Your task to perform on an android device: Clear all items from cart on ebay. Search for "dell xps" on ebay, select the first entry, add it to the cart, then select checkout. Image 0: 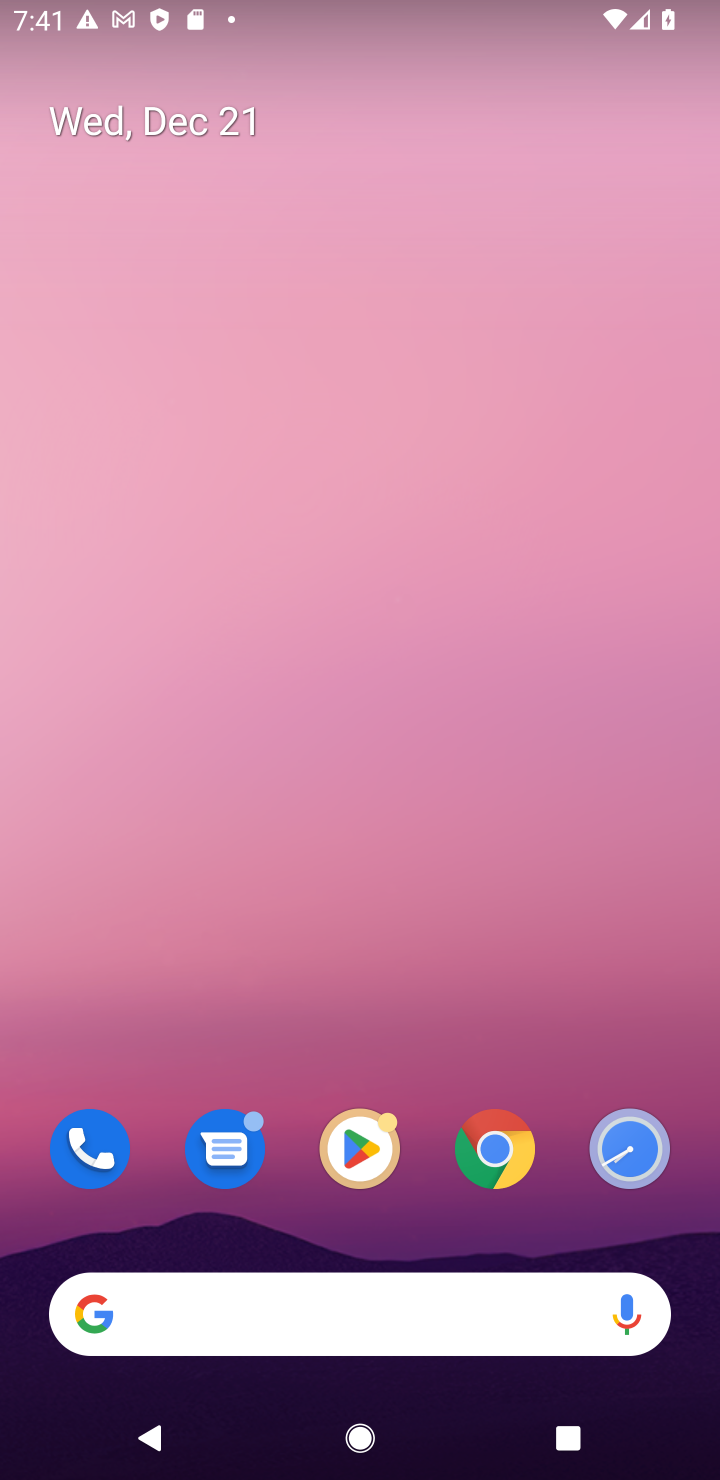
Step 0: click (498, 1154)
Your task to perform on an android device: Clear all items from cart on ebay. Search for "dell xps" on ebay, select the first entry, add it to the cart, then select checkout. Image 1: 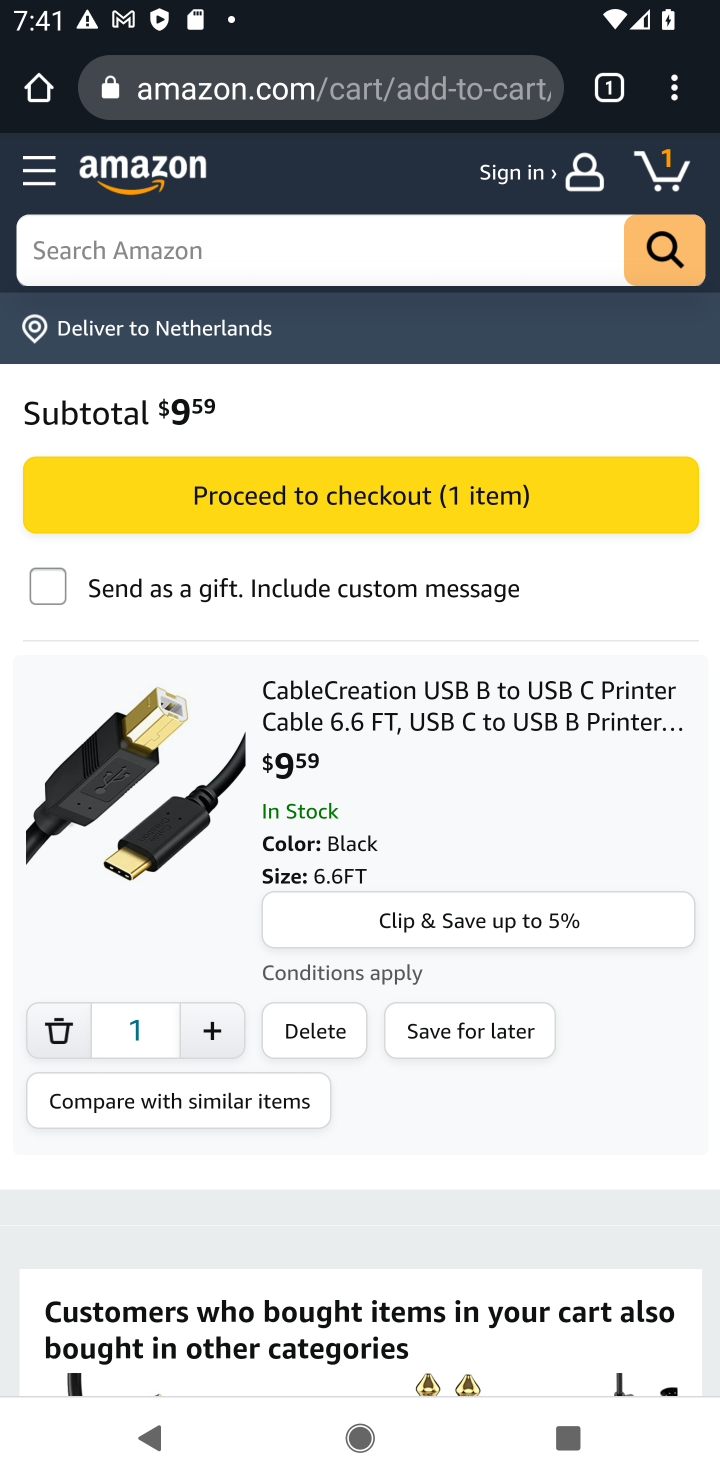
Step 1: click (408, 97)
Your task to perform on an android device: Clear all items from cart on ebay. Search for "dell xps" on ebay, select the first entry, add it to the cart, then select checkout. Image 2: 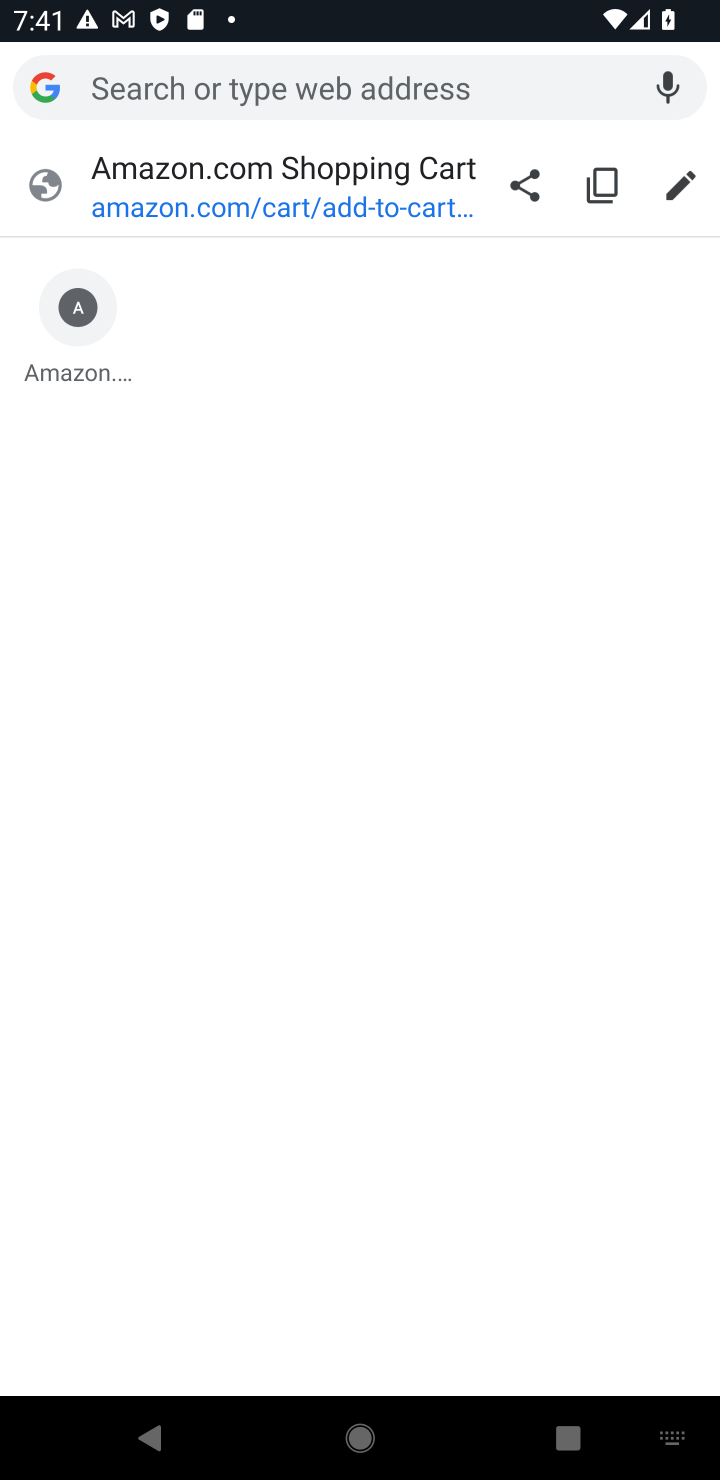
Step 2: type "EBAY"
Your task to perform on an android device: Clear all items from cart on ebay. Search for "dell xps" on ebay, select the first entry, add it to the cart, then select checkout. Image 3: 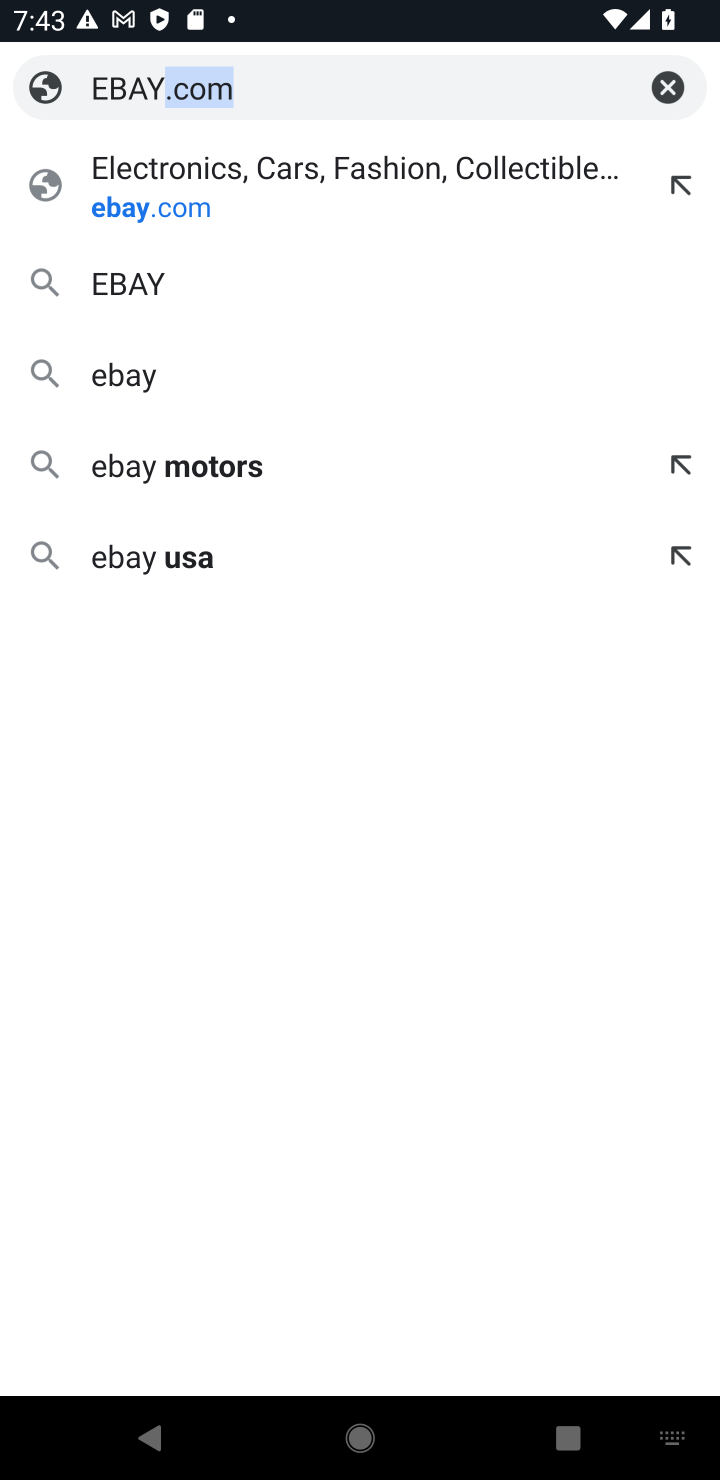
Step 3: click (252, 204)
Your task to perform on an android device: Clear all items from cart on ebay. Search for "dell xps" on ebay, select the first entry, add it to the cart, then select checkout. Image 4: 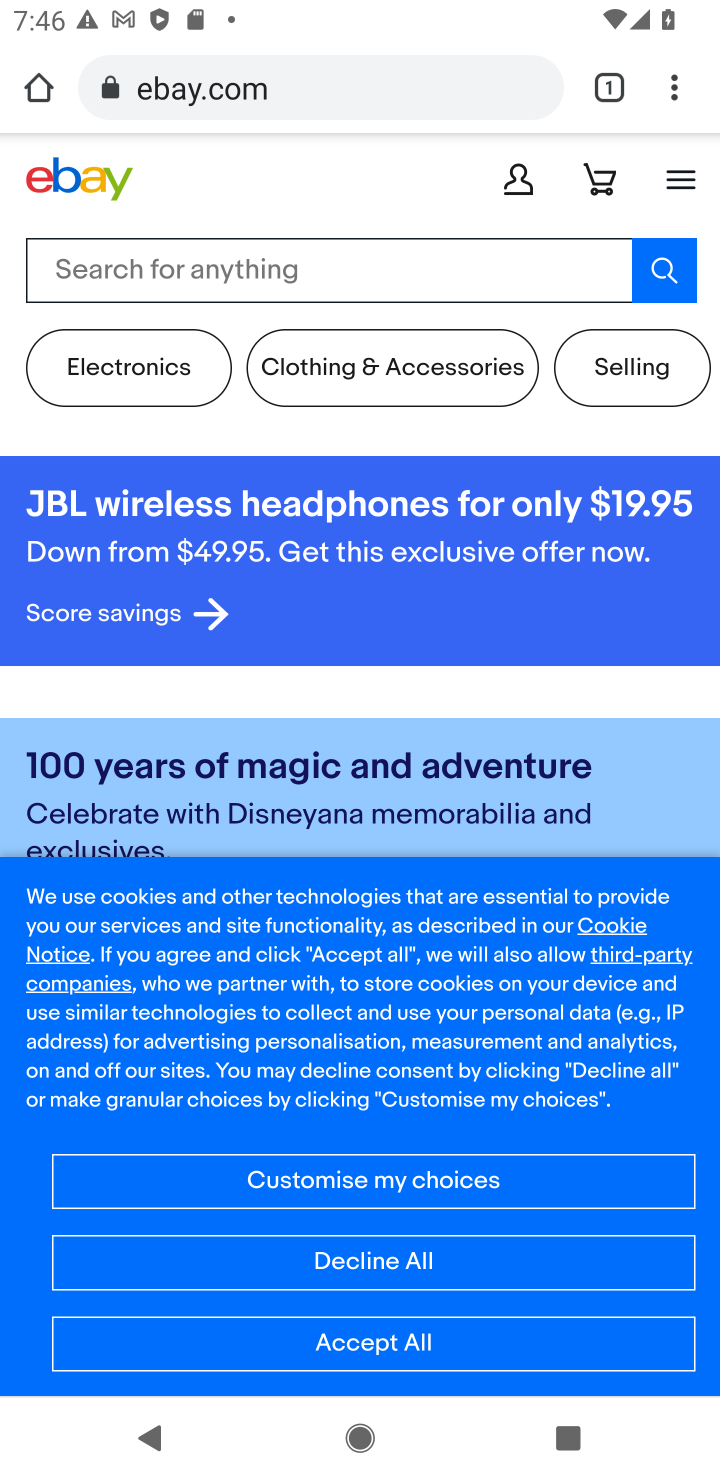
Step 4: task complete